Your task to perform on an android device: turn notification dots on Image 0: 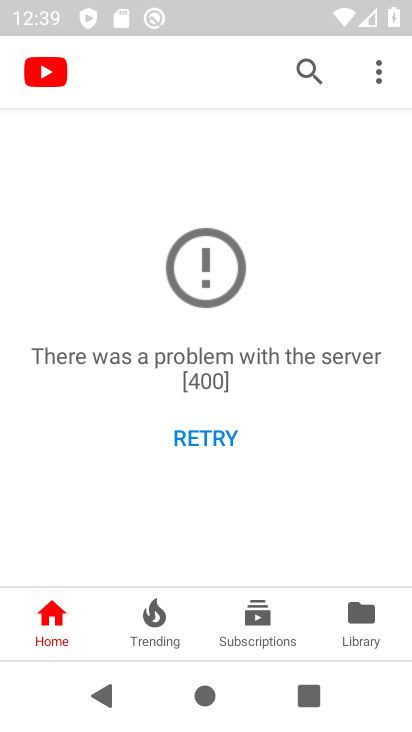
Step 0: press home button
Your task to perform on an android device: turn notification dots on Image 1: 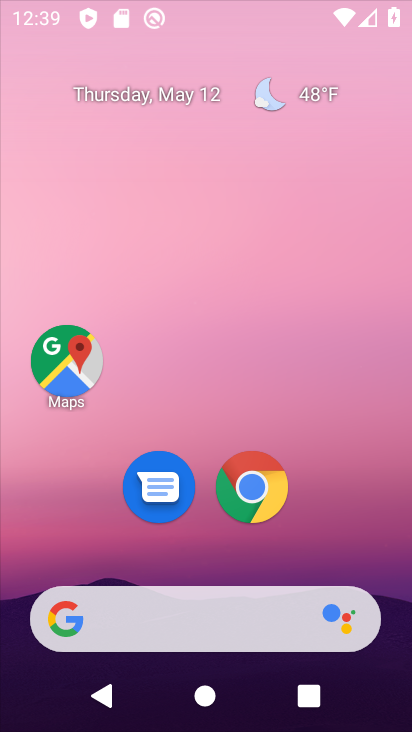
Step 1: drag from (253, 342) to (259, 111)
Your task to perform on an android device: turn notification dots on Image 2: 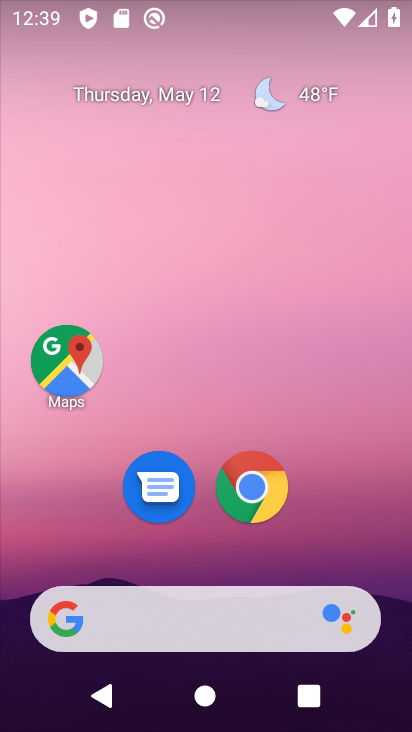
Step 2: drag from (241, 575) to (216, 236)
Your task to perform on an android device: turn notification dots on Image 3: 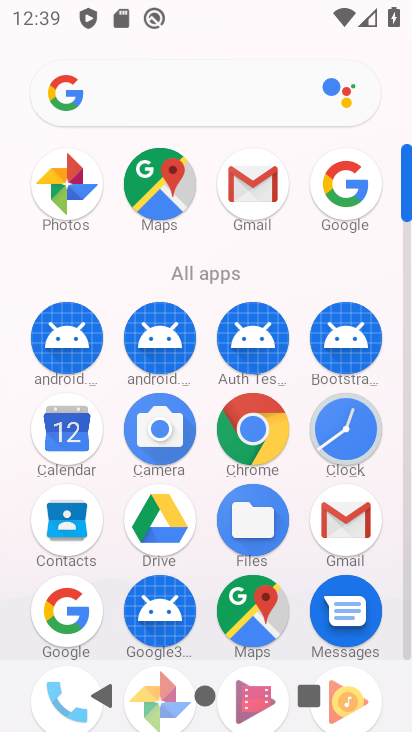
Step 3: drag from (254, 547) to (237, 247)
Your task to perform on an android device: turn notification dots on Image 4: 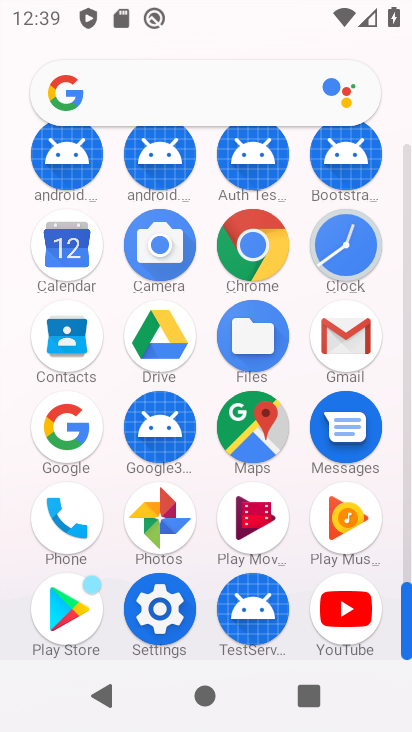
Step 4: click (175, 624)
Your task to perform on an android device: turn notification dots on Image 5: 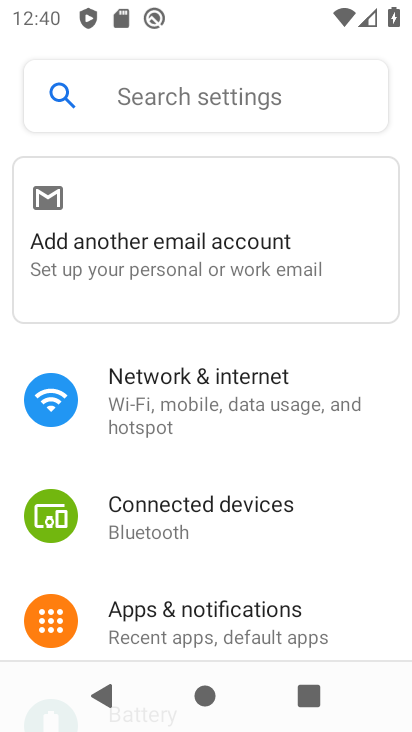
Step 5: drag from (182, 579) to (235, 281)
Your task to perform on an android device: turn notification dots on Image 6: 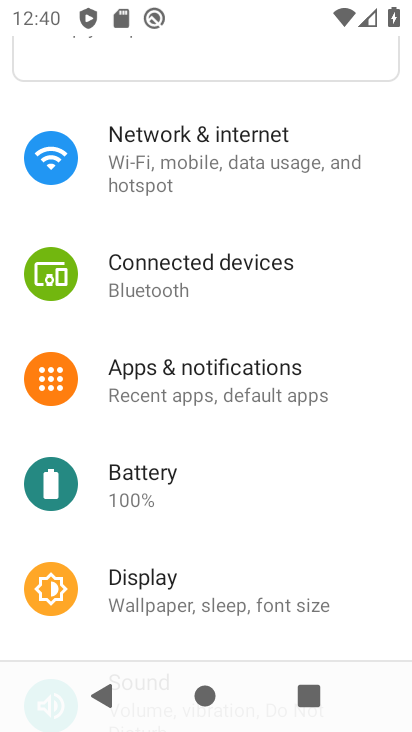
Step 6: click (318, 387)
Your task to perform on an android device: turn notification dots on Image 7: 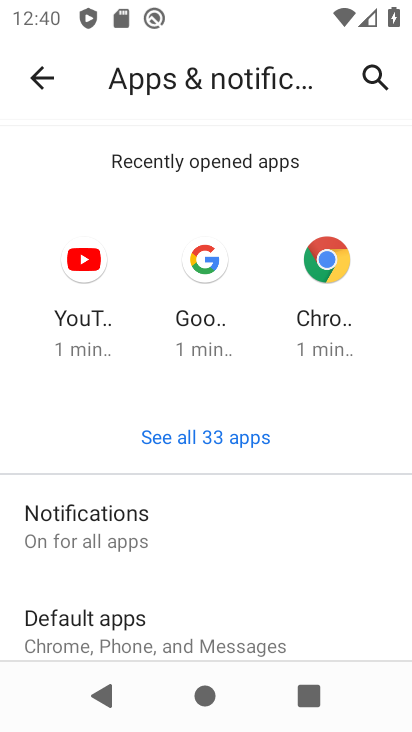
Step 7: drag from (259, 565) to (287, 400)
Your task to perform on an android device: turn notification dots on Image 8: 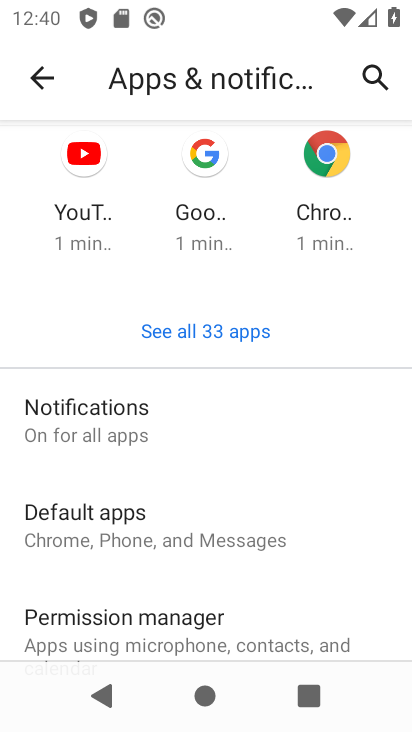
Step 8: drag from (212, 514) to (245, 409)
Your task to perform on an android device: turn notification dots on Image 9: 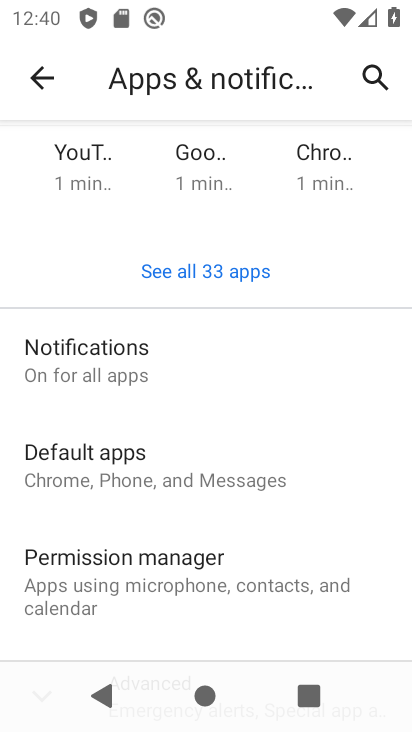
Step 9: drag from (238, 542) to (237, 490)
Your task to perform on an android device: turn notification dots on Image 10: 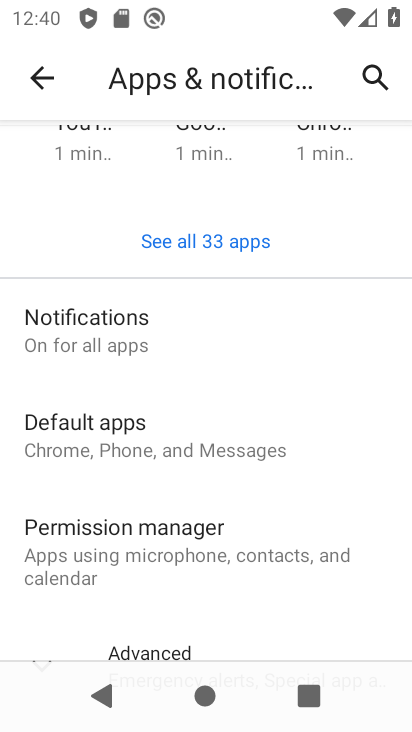
Step 10: drag from (222, 604) to (226, 455)
Your task to perform on an android device: turn notification dots on Image 11: 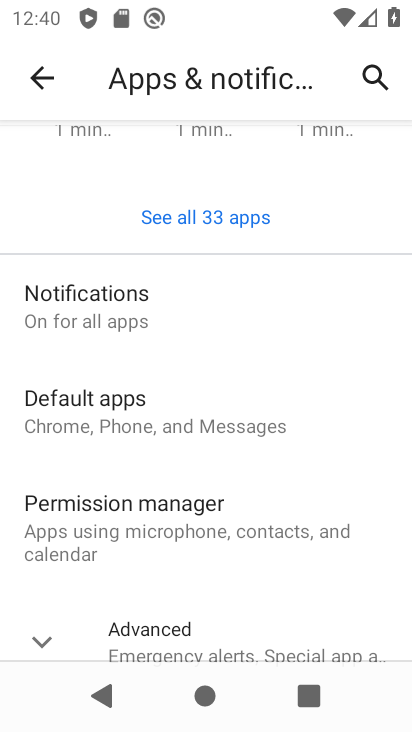
Step 11: drag from (175, 619) to (195, 464)
Your task to perform on an android device: turn notification dots on Image 12: 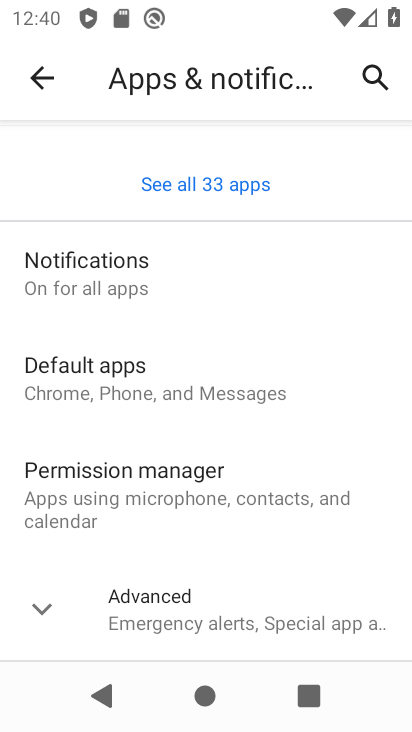
Step 12: click (178, 297)
Your task to perform on an android device: turn notification dots on Image 13: 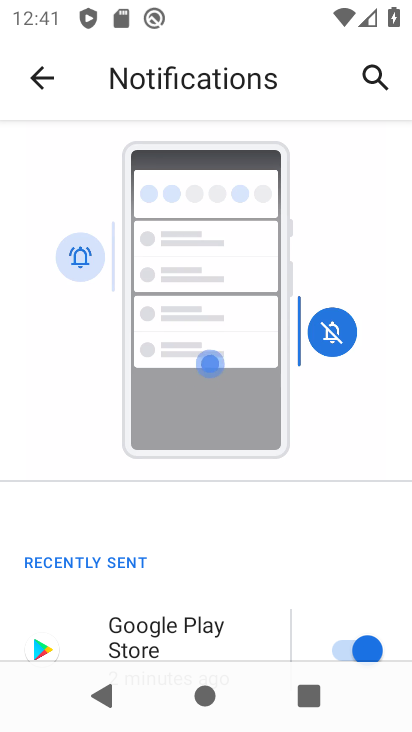
Step 13: drag from (150, 573) to (160, 21)
Your task to perform on an android device: turn notification dots on Image 14: 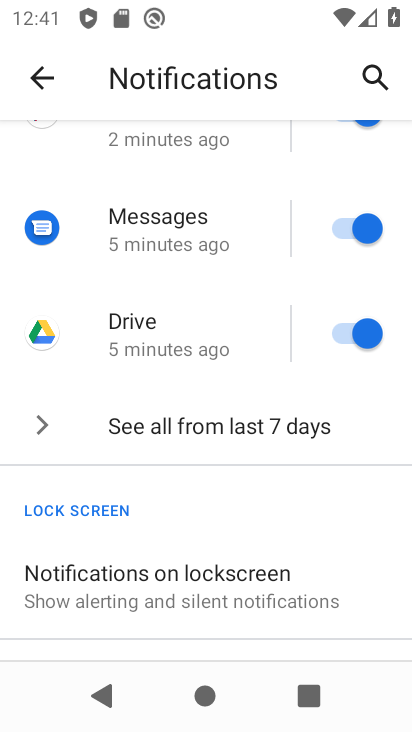
Step 14: drag from (194, 541) to (168, 214)
Your task to perform on an android device: turn notification dots on Image 15: 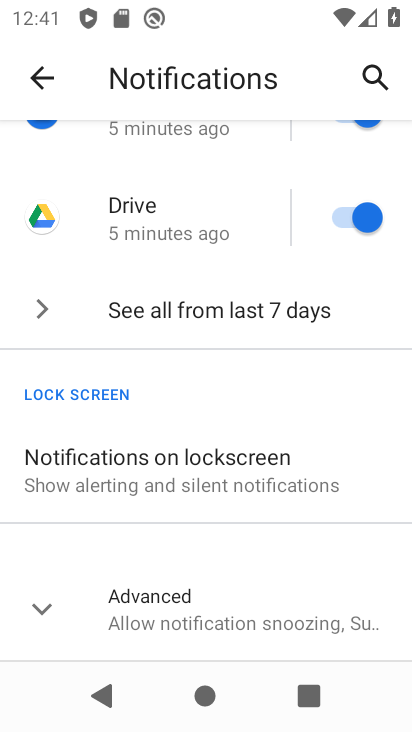
Step 15: click (186, 623)
Your task to perform on an android device: turn notification dots on Image 16: 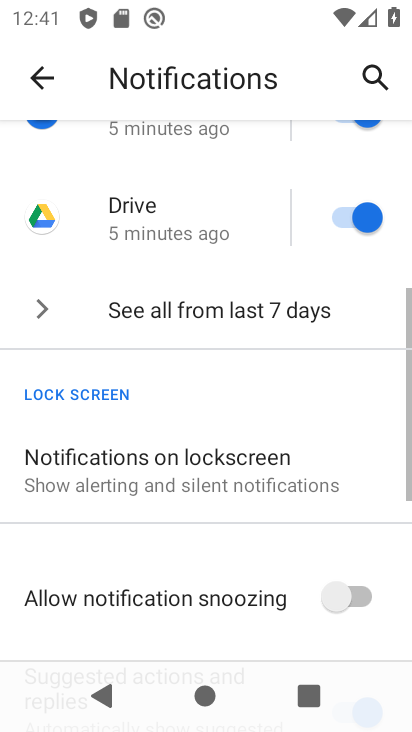
Step 16: task complete